Your task to perform on an android device: open device folders in google photos Image 0: 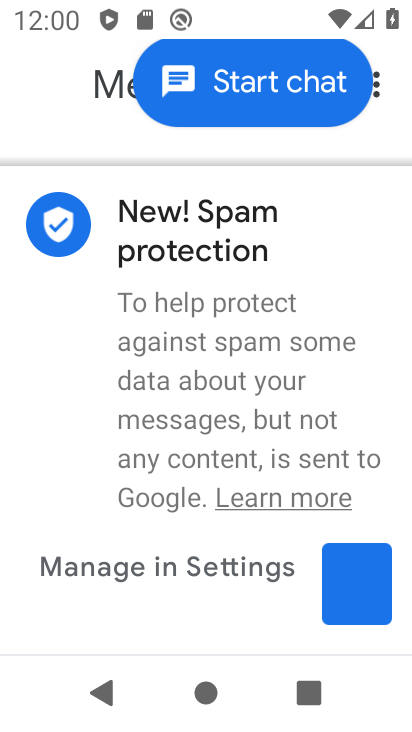
Step 0: press home button
Your task to perform on an android device: open device folders in google photos Image 1: 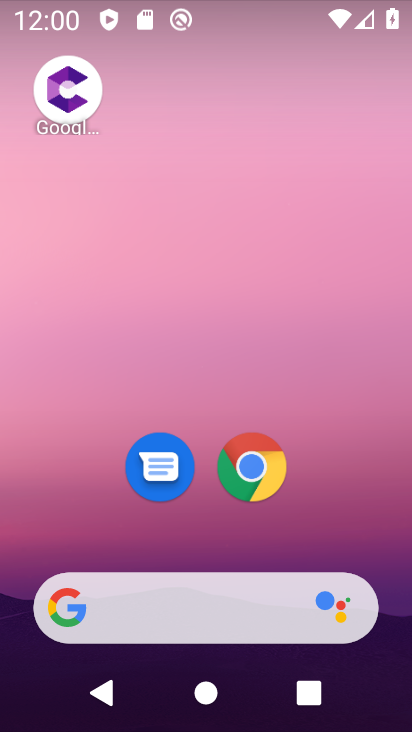
Step 1: drag from (357, 516) to (300, 13)
Your task to perform on an android device: open device folders in google photos Image 2: 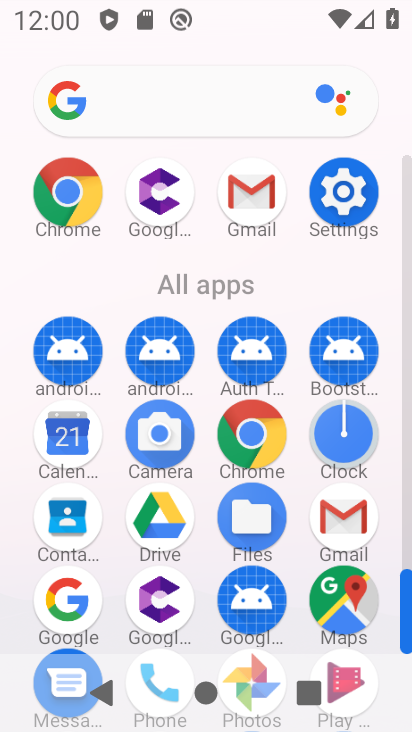
Step 2: drag from (200, 293) to (165, 148)
Your task to perform on an android device: open device folders in google photos Image 3: 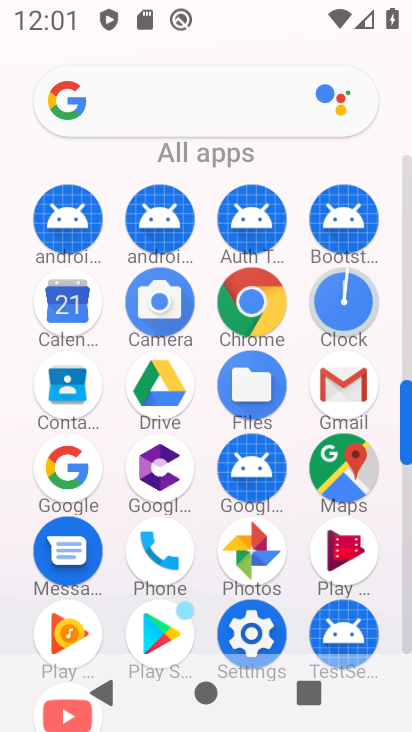
Step 3: click (246, 555)
Your task to perform on an android device: open device folders in google photos Image 4: 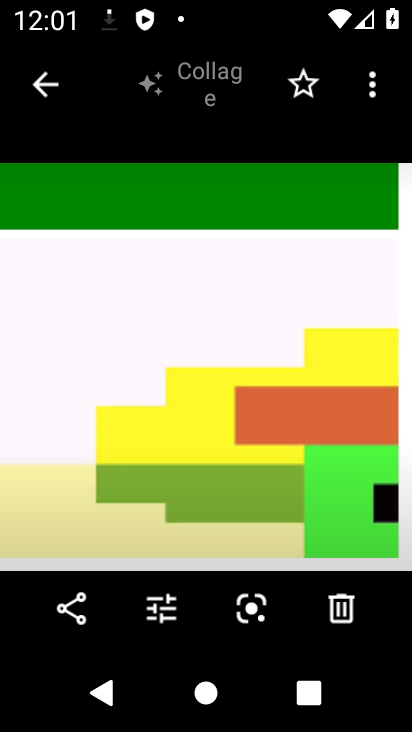
Step 4: click (44, 94)
Your task to perform on an android device: open device folders in google photos Image 5: 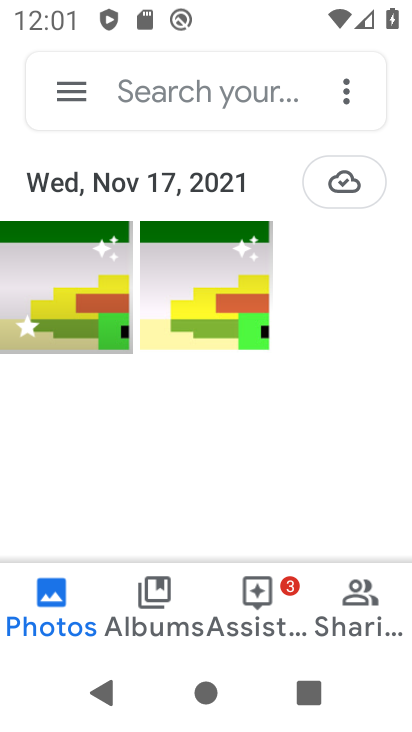
Step 5: click (63, 101)
Your task to perform on an android device: open device folders in google photos Image 6: 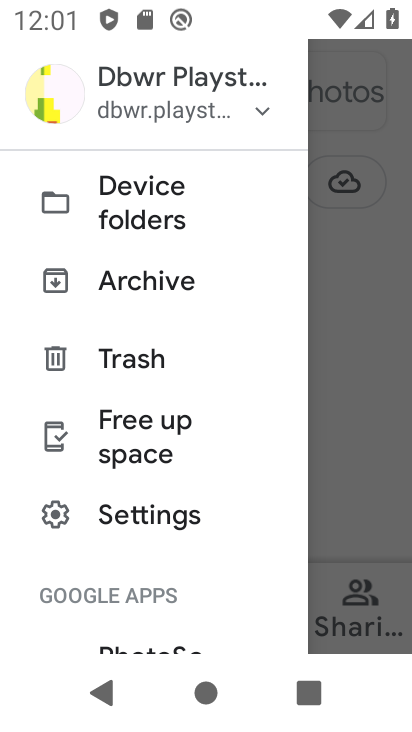
Step 6: click (137, 193)
Your task to perform on an android device: open device folders in google photos Image 7: 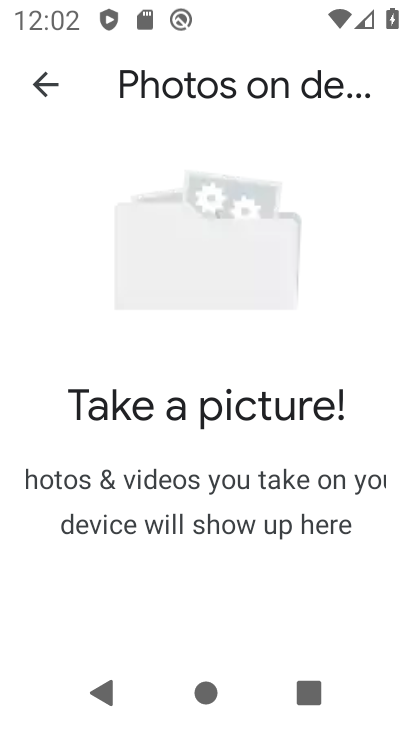
Step 7: task complete